Your task to perform on an android device: turn on notifications settings in the gmail app Image 0: 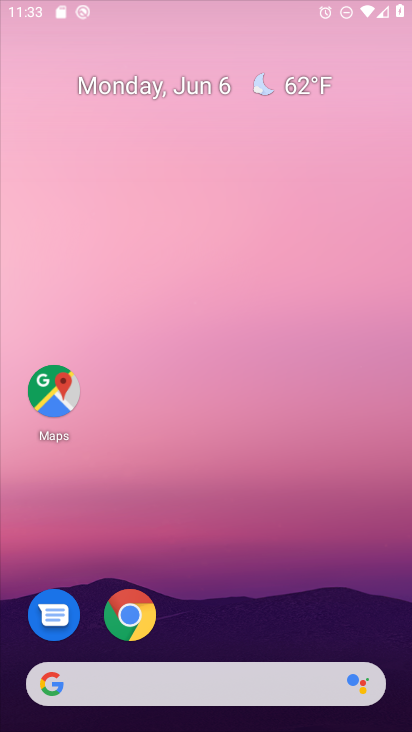
Step 0: press home button
Your task to perform on an android device: turn on notifications settings in the gmail app Image 1: 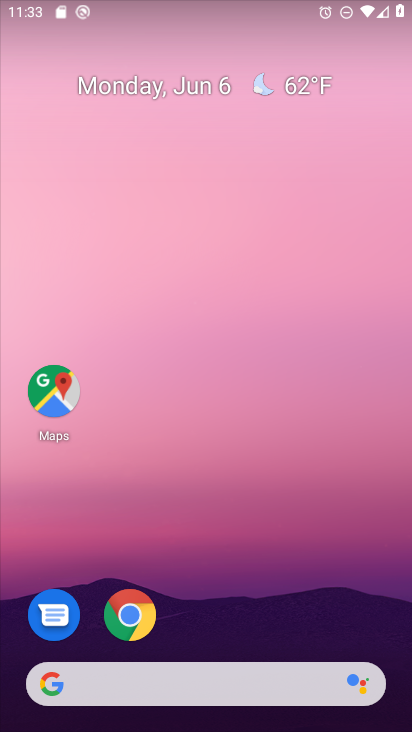
Step 1: drag from (236, 672) to (81, 3)
Your task to perform on an android device: turn on notifications settings in the gmail app Image 2: 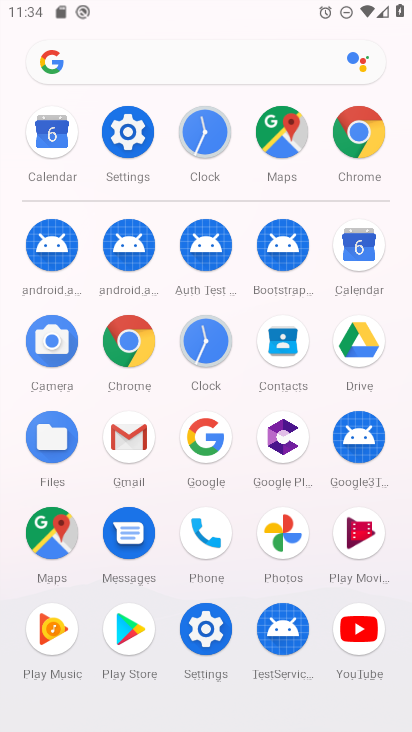
Step 2: click (129, 419)
Your task to perform on an android device: turn on notifications settings in the gmail app Image 3: 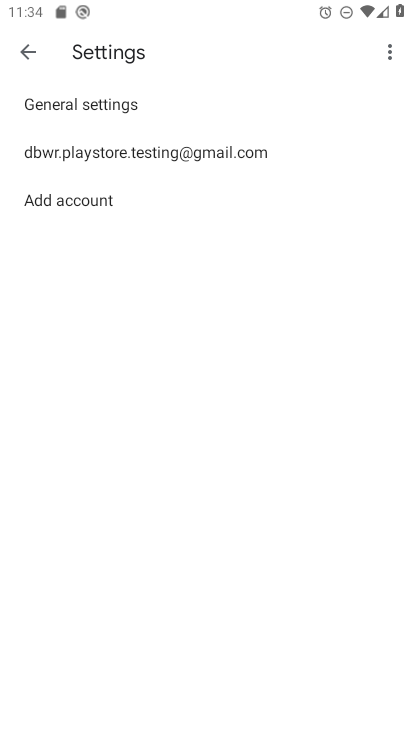
Step 3: click (123, 153)
Your task to perform on an android device: turn on notifications settings in the gmail app Image 4: 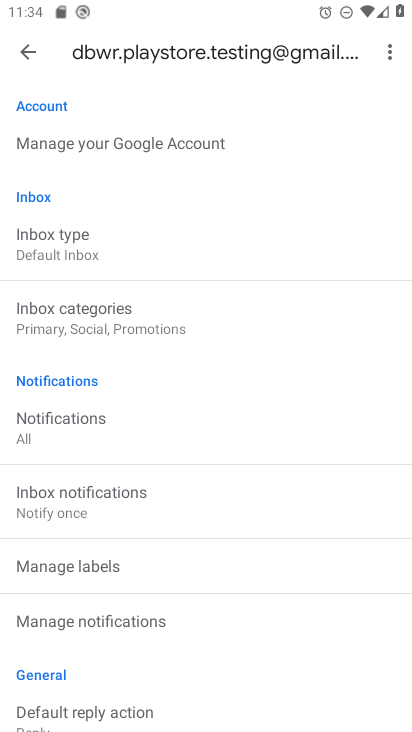
Step 4: click (96, 632)
Your task to perform on an android device: turn on notifications settings in the gmail app Image 5: 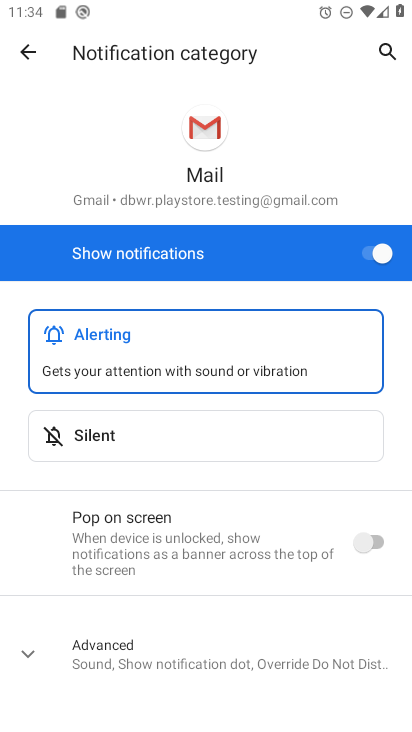
Step 5: task complete